Your task to perform on an android device: find photos in the google photos app Image 0: 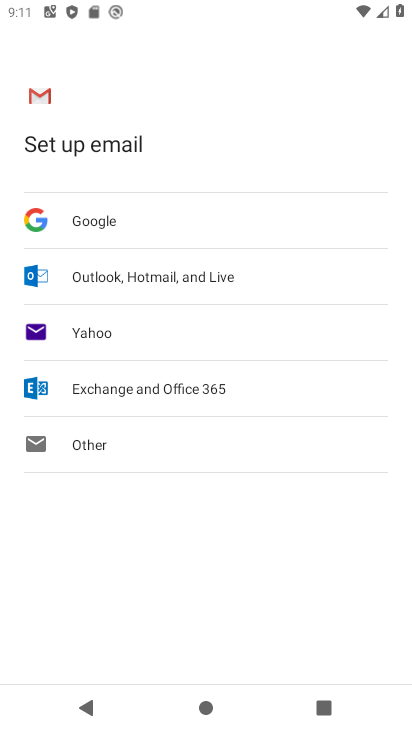
Step 0: press home button
Your task to perform on an android device: find photos in the google photos app Image 1: 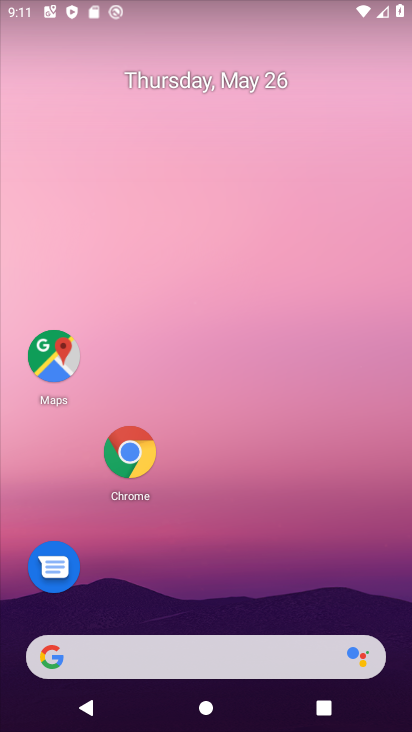
Step 1: drag from (187, 649) to (285, 177)
Your task to perform on an android device: find photos in the google photos app Image 2: 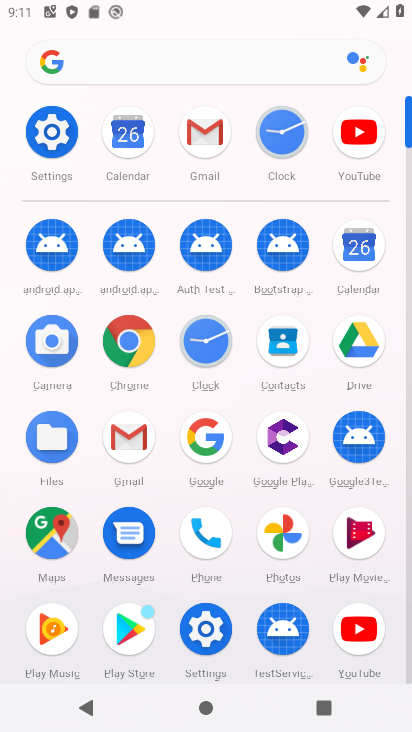
Step 2: click (279, 542)
Your task to perform on an android device: find photos in the google photos app Image 3: 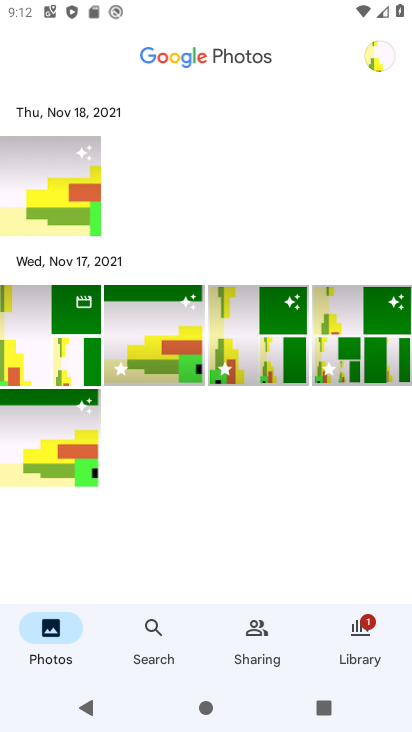
Step 3: task complete